Your task to perform on an android device: toggle improve location accuracy Image 0: 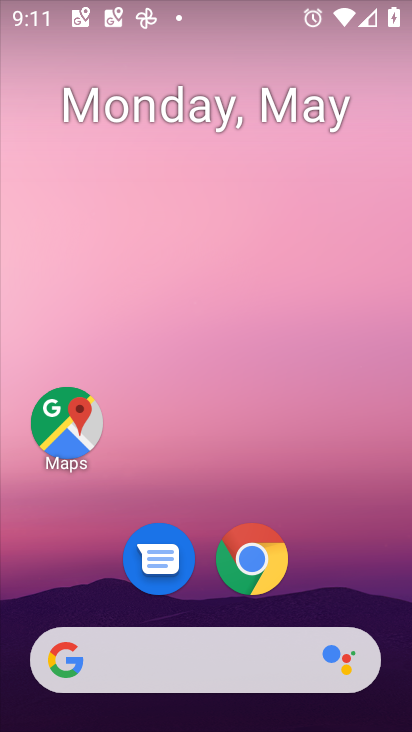
Step 0: drag from (393, 647) to (372, 285)
Your task to perform on an android device: toggle improve location accuracy Image 1: 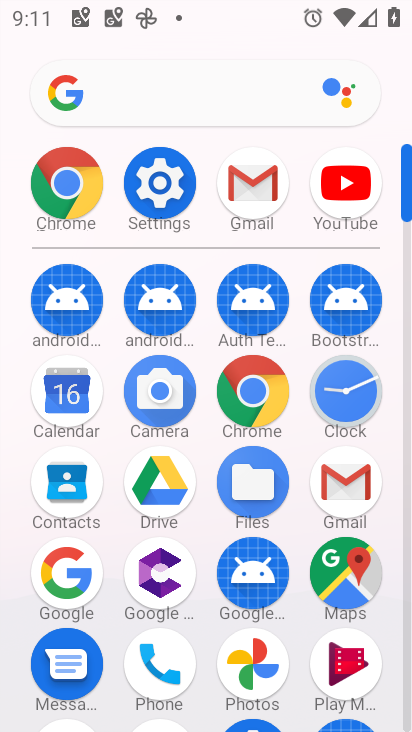
Step 1: click (171, 201)
Your task to perform on an android device: toggle improve location accuracy Image 2: 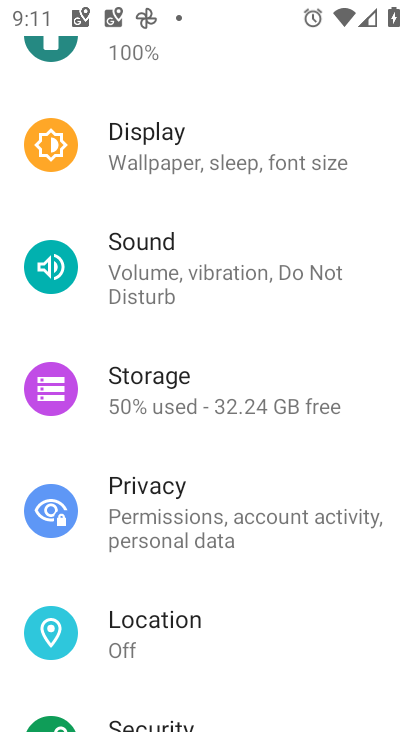
Step 2: click (200, 639)
Your task to perform on an android device: toggle improve location accuracy Image 3: 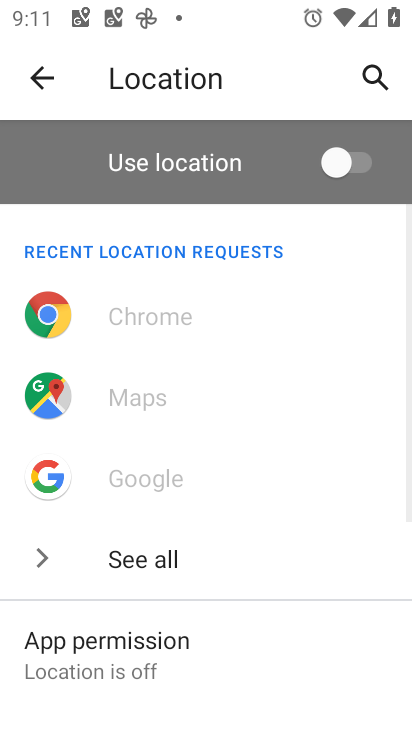
Step 3: drag from (200, 639) to (216, 168)
Your task to perform on an android device: toggle improve location accuracy Image 4: 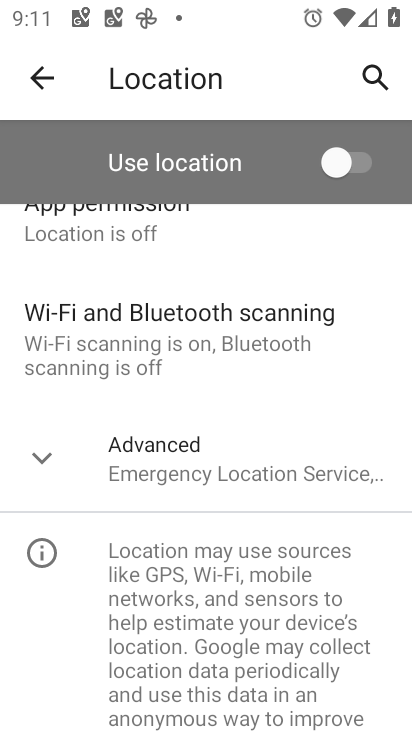
Step 4: click (115, 470)
Your task to perform on an android device: toggle improve location accuracy Image 5: 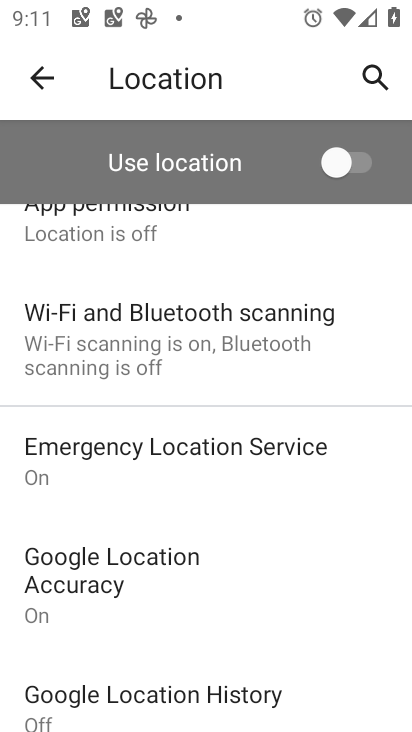
Step 5: click (119, 563)
Your task to perform on an android device: toggle improve location accuracy Image 6: 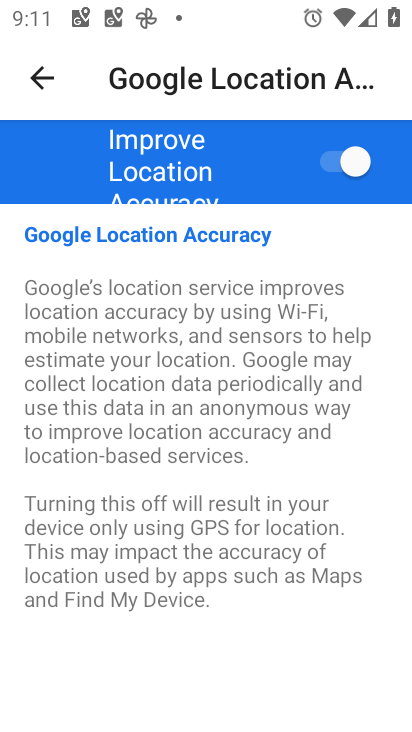
Step 6: click (356, 148)
Your task to perform on an android device: toggle improve location accuracy Image 7: 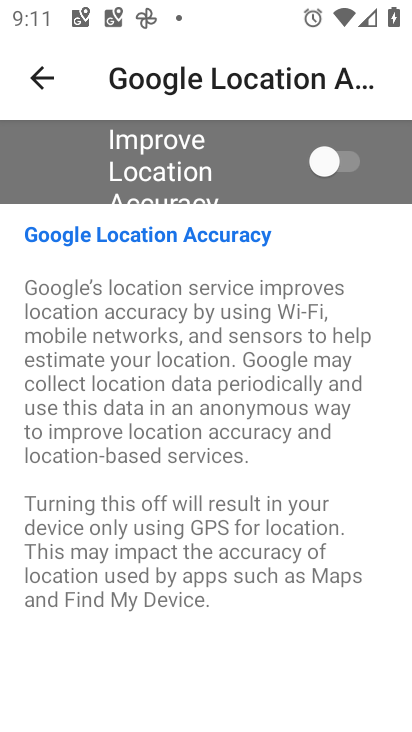
Step 7: task complete